Your task to perform on an android device: Go to wifi settings Image 0: 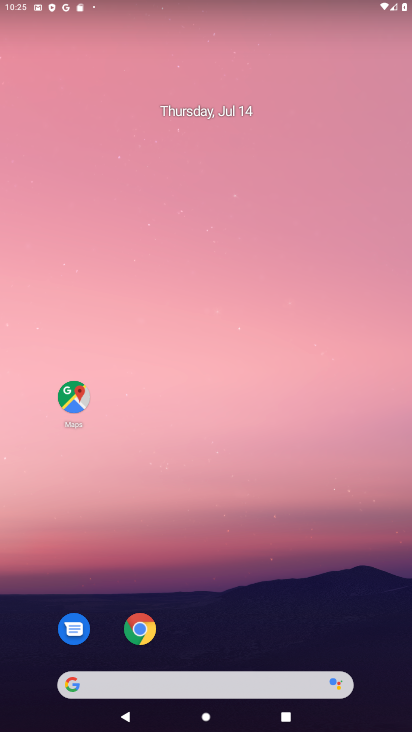
Step 0: drag from (298, 540) to (245, 24)
Your task to perform on an android device: Go to wifi settings Image 1: 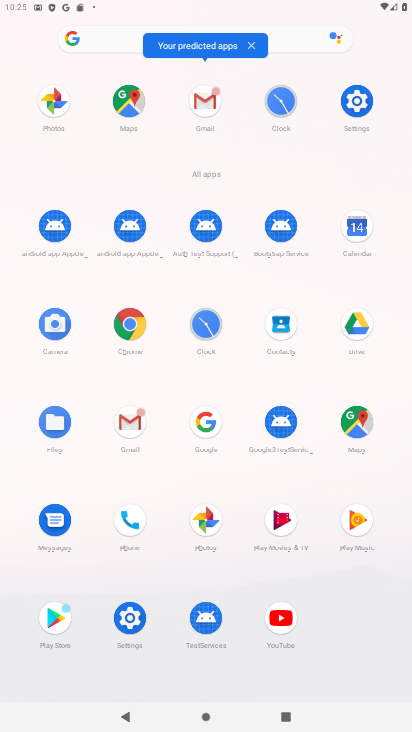
Step 1: click (361, 100)
Your task to perform on an android device: Go to wifi settings Image 2: 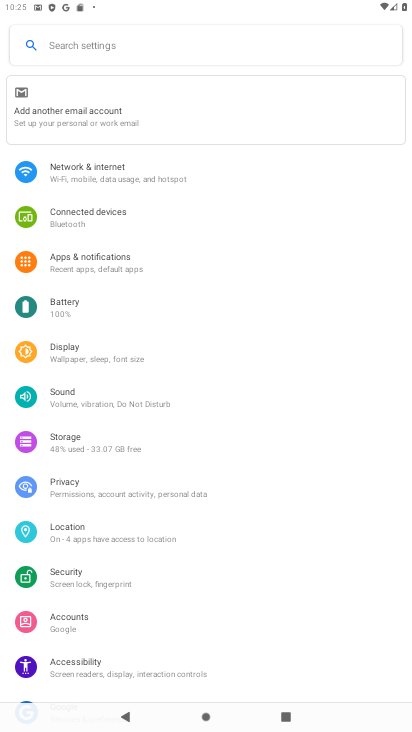
Step 2: click (51, 177)
Your task to perform on an android device: Go to wifi settings Image 3: 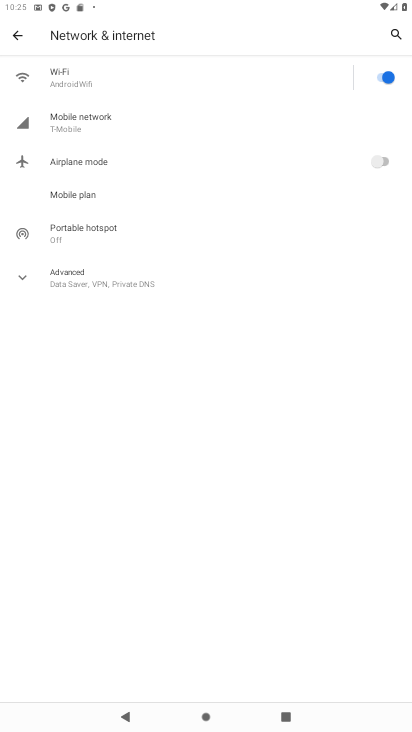
Step 3: click (54, 85)
Your task to perform on an android device: Go to wifi settings Image 4: 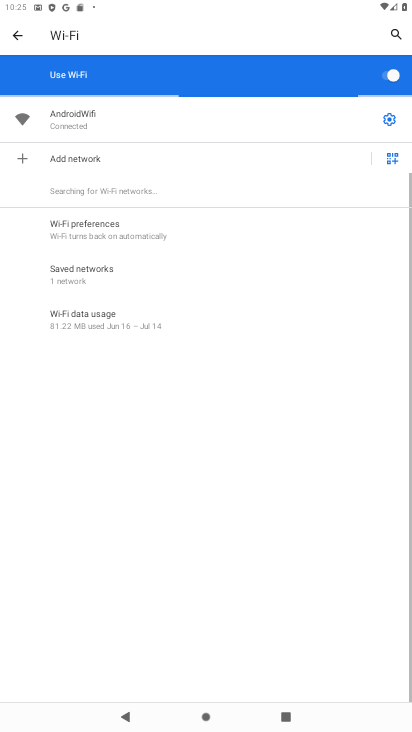
Step 4: task complete